Your task to perform on an android device: change the upload size in google photos Image 0: 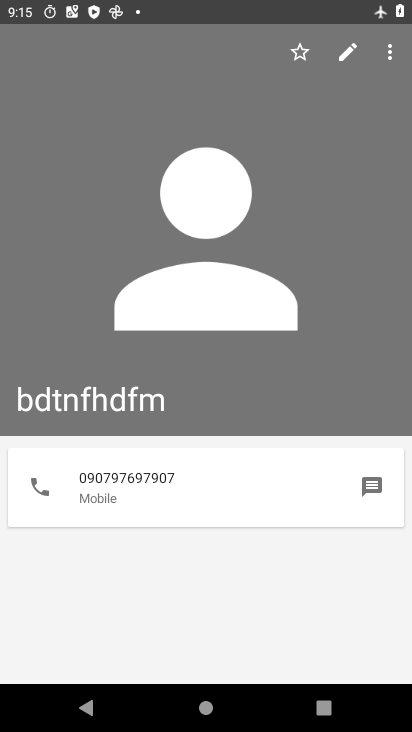
Step 0: press home button
Your task to perform on an android device: change the upload size in google photos Image 1: 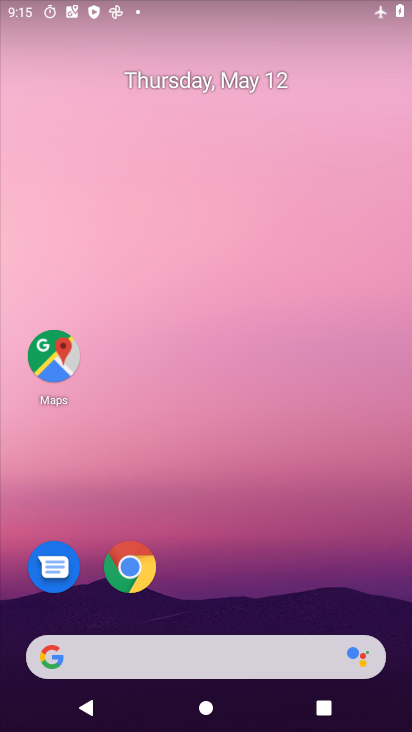
Step 1: drag from (251, 643) to (251, 346)
Your task to perform on an android device: change the upload size in google photos Image 2: 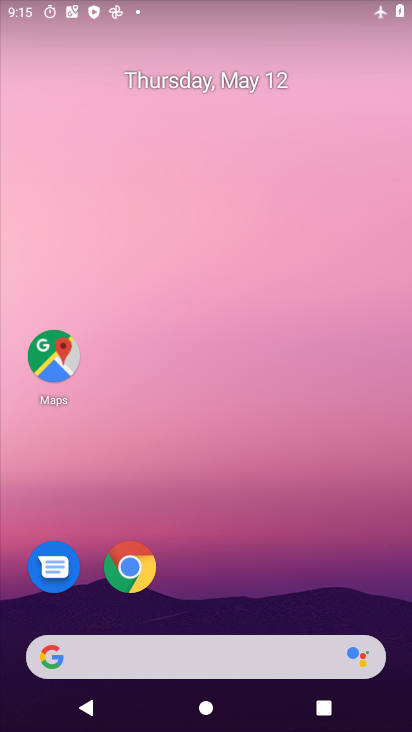
Step 2: drag from (238, 613) to (242, 298)
Your task to perform on an android device: change the upload size in google photos Image 3: 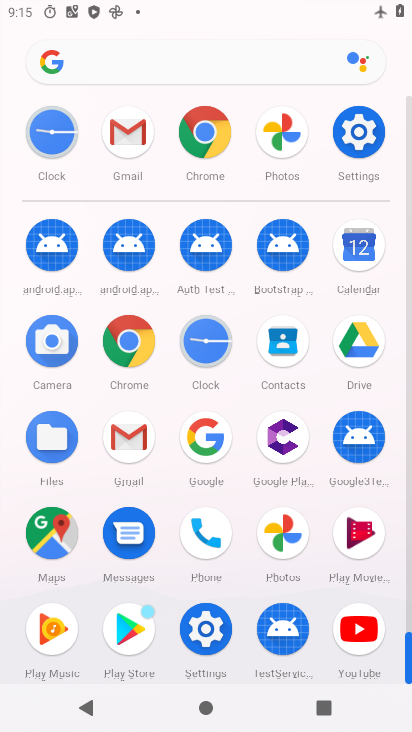
Step 3: click (279, 578)
Your task to perform on an android device: change the upload size in google photos Image 4: 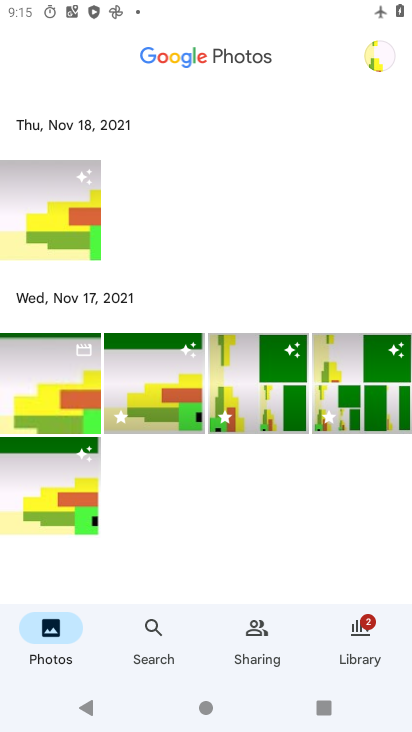
Step 4: click (389, 60)
Your task to perform on an android device: change the upload size in google photos Image 5: 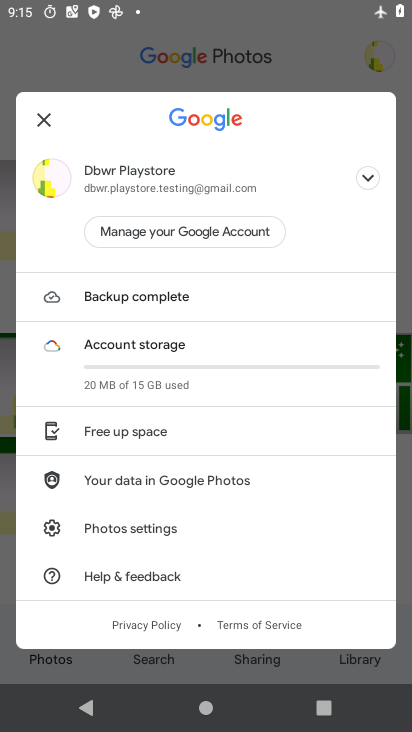
Step 5: click (151, 534)
Your task to perform on an android device: change the upload size in google photos Image 6: 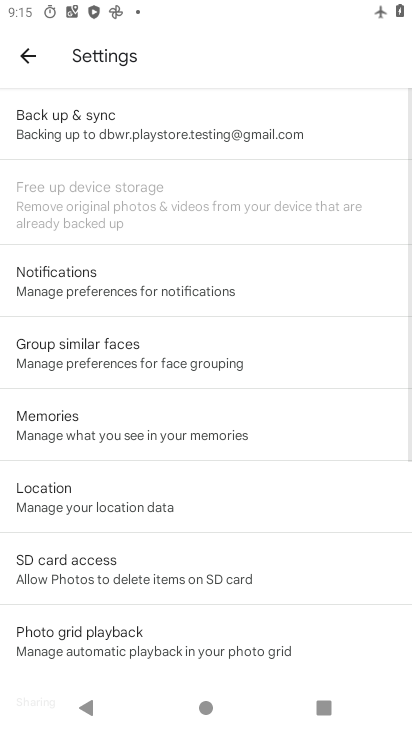
Step 6: click (180, 126)
Your task to perform on an android device: change the upload size in google photos Image 7: 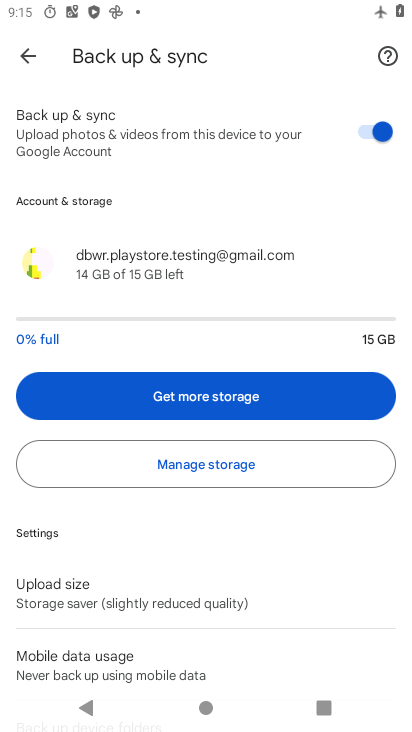
Step 7: click (144, 595)
Your task to perform on an android device: change the upload size in google photos Image 8: 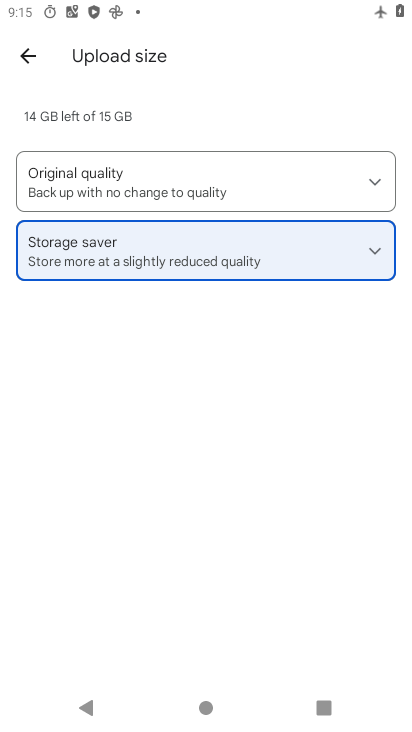
Step 8: click (174, 184)
Your task to perform on an android device: change the upload size in google photos Image 9: 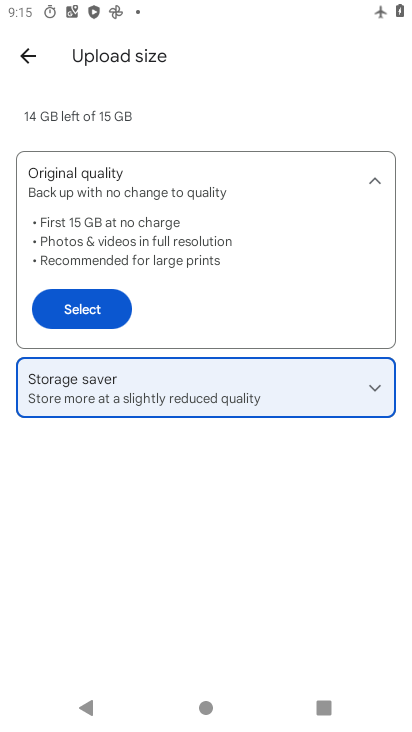
Step 9: click (189, 214)
Your task to perform on an android device: change the upload size in google photos Image 10: 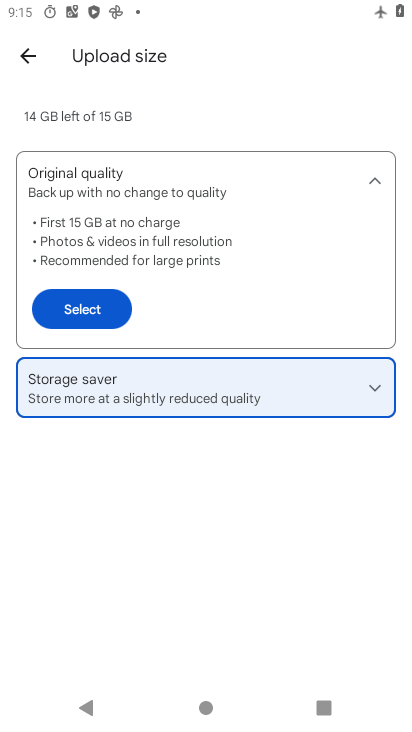
Step 10: click (100, 317)
Your task to perform on an android device: change the upload size in google photos Image 11: 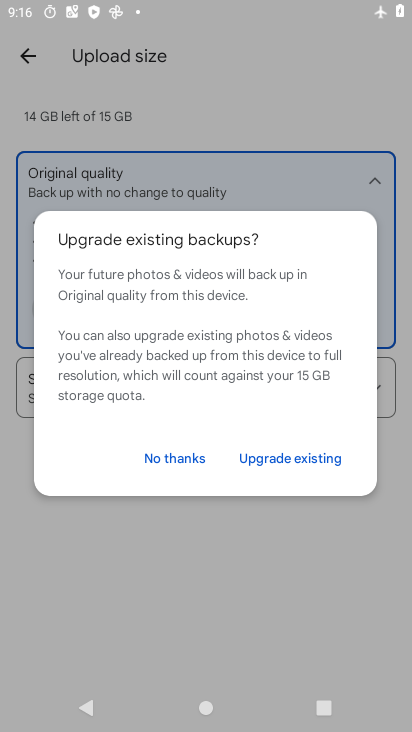
Step 11: click (173, 459)
Your task to perform on an android device: change the upload size in google photos Image 12: 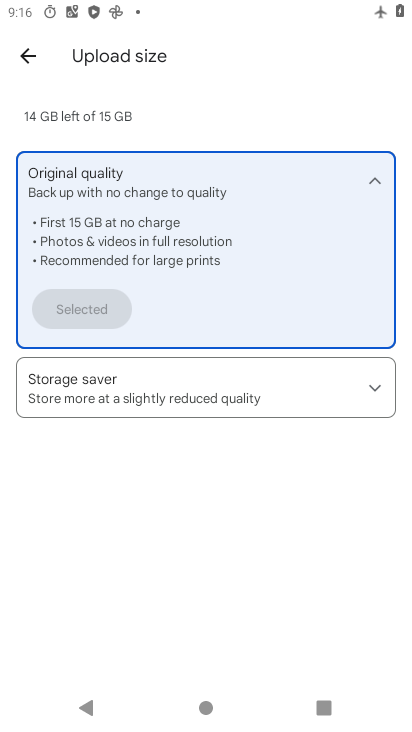
Step 12: task complete